Your task to perform on an android device: Search for seafood restaurants on Google Maps Image 0: 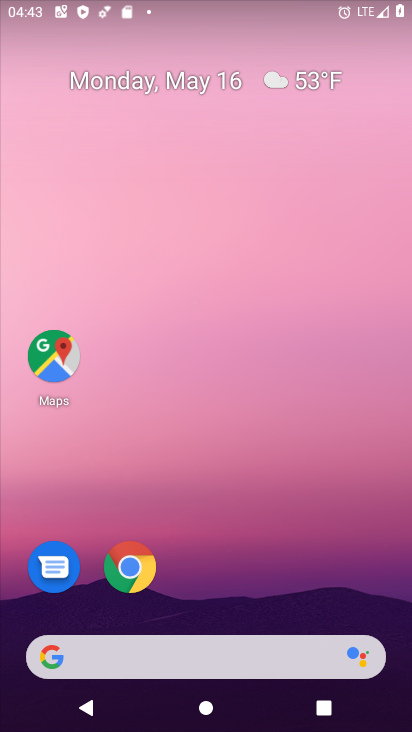
Step 0: drag from (145, 644) to (129, 0)
Your task to perform on an android device: Search for seafood restaurants on Google Maps Image 1: 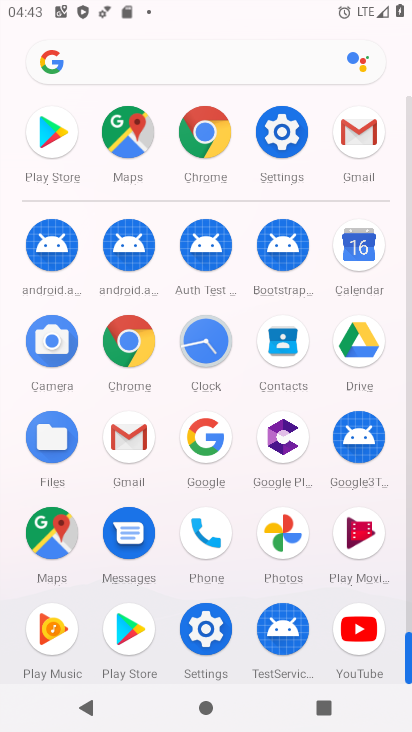
Step 1: click (48, 541)
Your task to perform on an android device: Search for seafood restaurants on Google Maps Image 2: 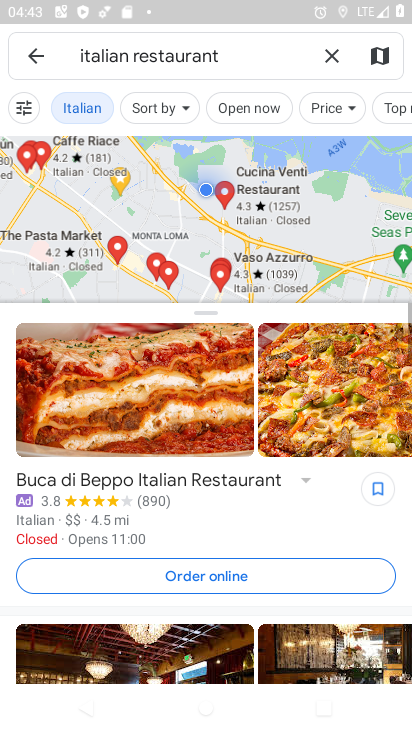
Step 2: click (329, 49)
Your task to perform on an android device: Search for seafood restaurants on Google Maps Image 3: 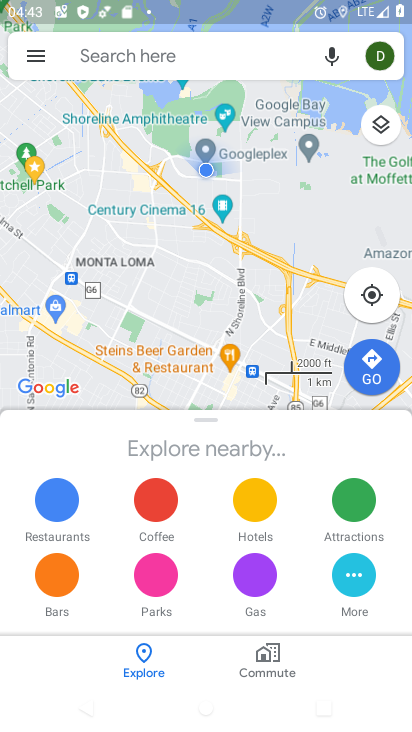
Step 3: click (274, 50)
Your task to perform on an android device: Search for seafood restaurants on Google Maps Image 4: 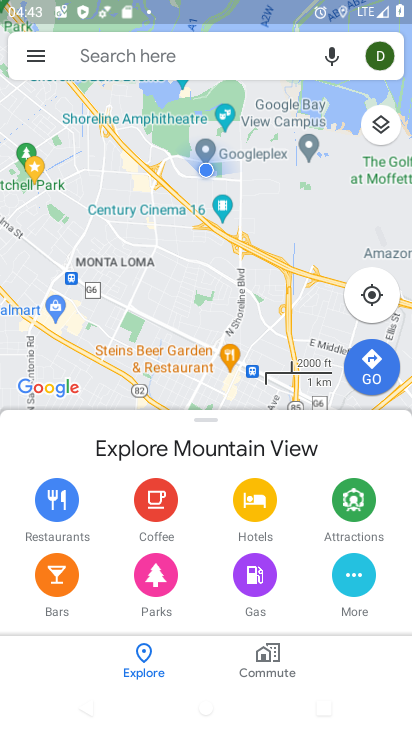
Step 4: click (274, 50)
Your task to perform on an android device: Search for seafood restaurants on Google Maps Image 5: 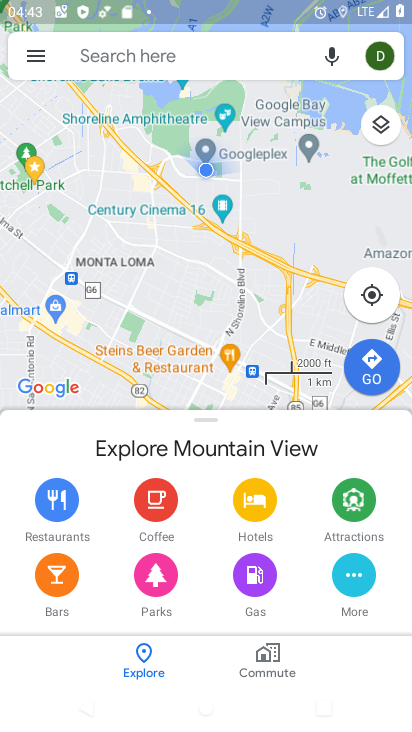
Step 5: click (274, 50)
Your task to perform on an android device: Search for seafood restaurants on Google Maps Image 6: 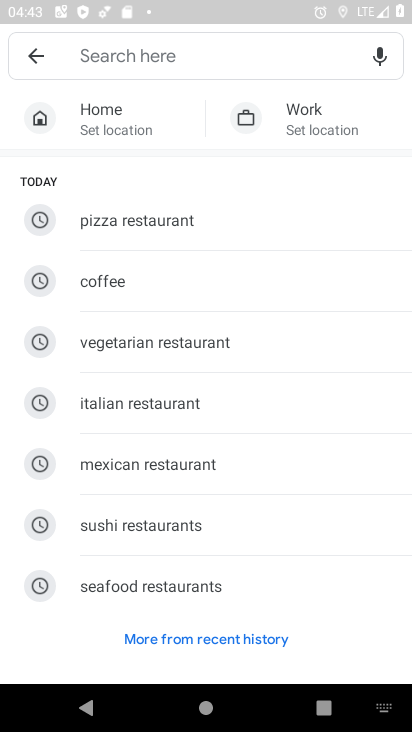
Step 6: click (190, 586)
Your task to perform on an android device: Search for seafood restaurants on Google Maps Image 7: 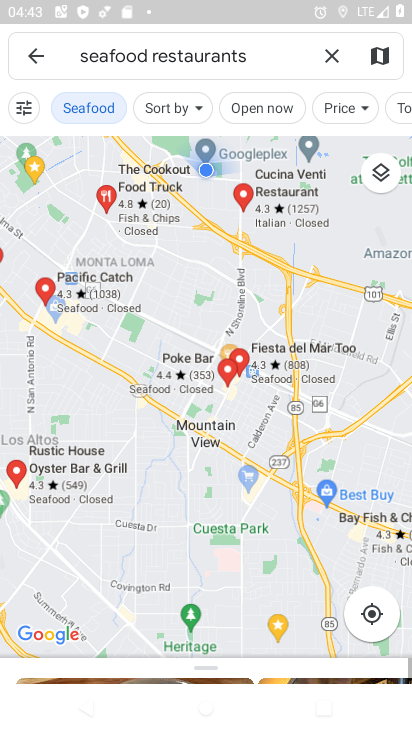
Step 7: task complete